Your task to perform on an android device: change text size in settings app Image 0: 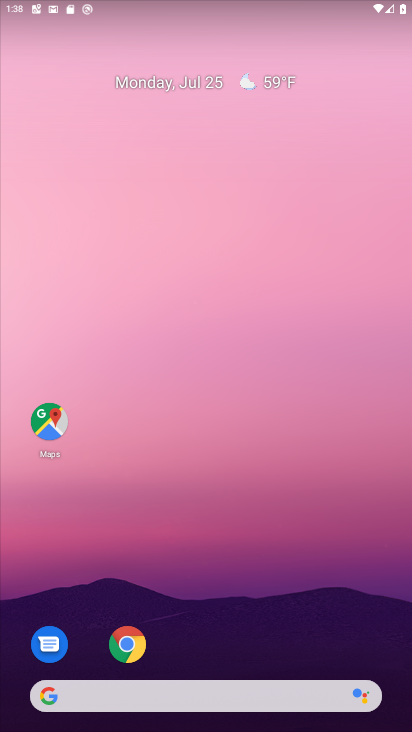
Step 0: drag from (359, 571) to (368, 163)
Your task to perform on an android device: change text size in settings app Image 1: 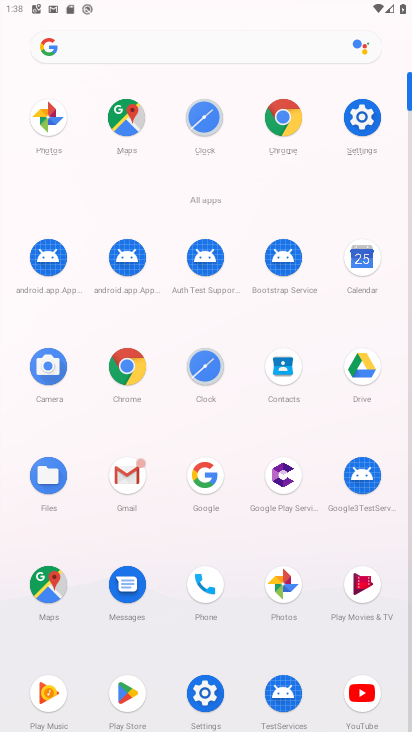
Step 1: click (361, 128)
Your task to perform on an android device: change text size in settings app Image 2: 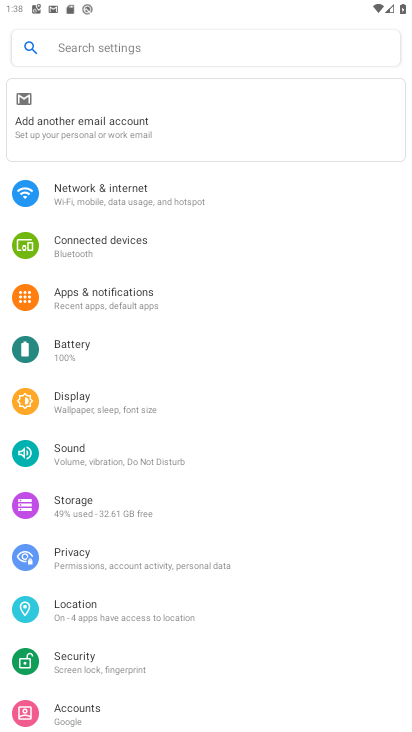
Step 2: click (71, 411)
Your task to perform on an android device: change text size in settings app Image 3: 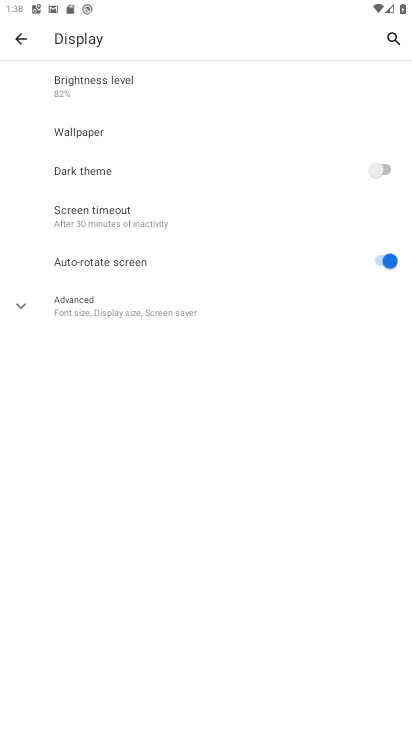
Step 3: click (55, 305)
Your task to perform on an android device: change text size in settings app Image 4: 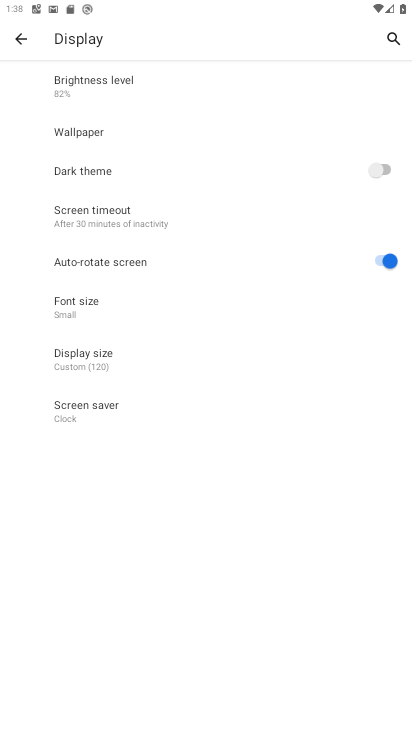
Step 4: click (82, 303)
Your task to perform on an android device: change text size in settings app Image 5: 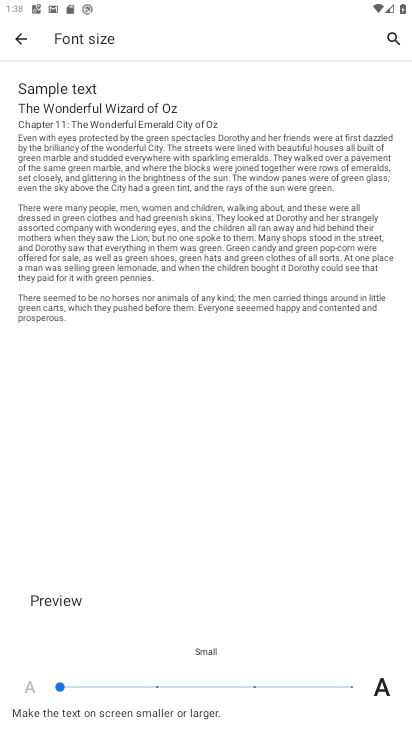
Step 5: click (253, 685)
Your task to perform on an android device: change text size in settings app Image 6: 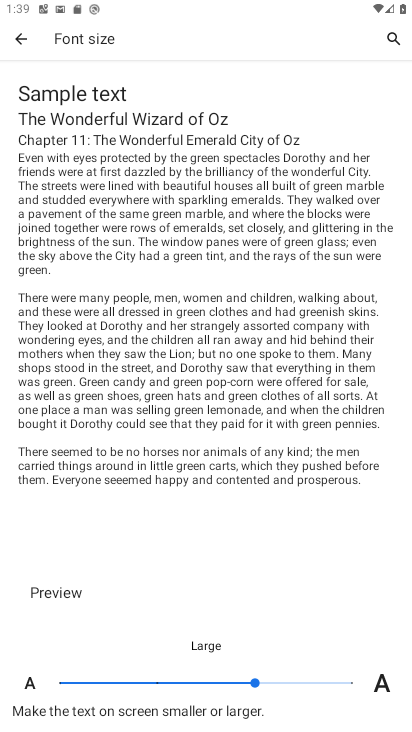
Step 6: click (353, 682)
Your task to perform on an android device: change text size in settings app Image 7: 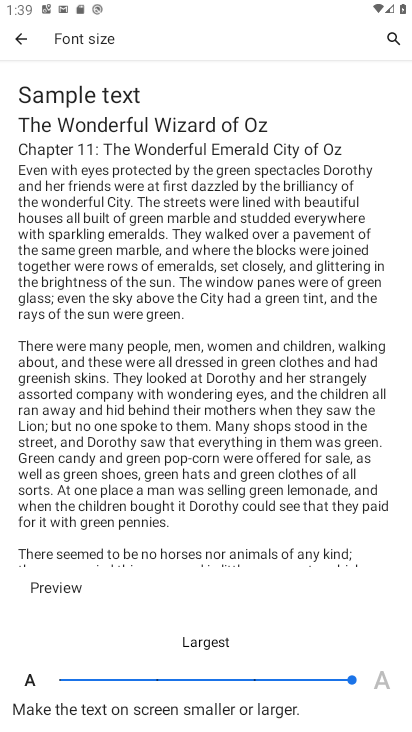
Step 7: task complete